Your task to perform on an android device: Open the map Image 0: 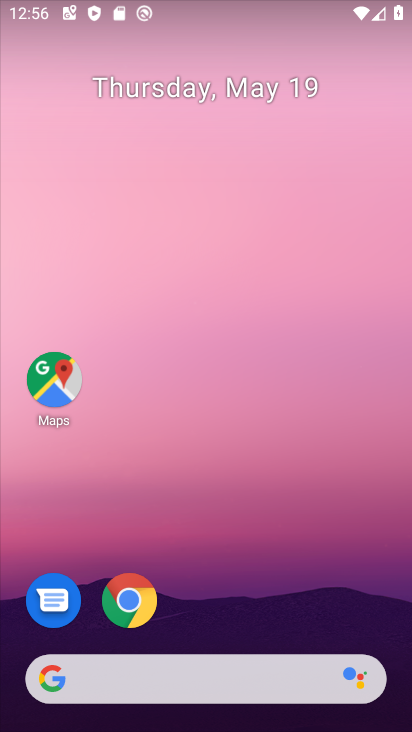
Step 0: click (57, 371)
Your task to perform on an android device: Open the map Image 1: 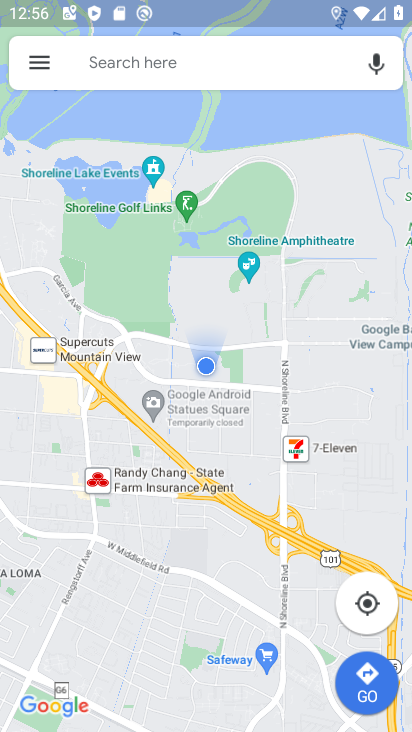
Step 1: task complete